Your task to perform on an android device: Open Yahoo.com Image 0: 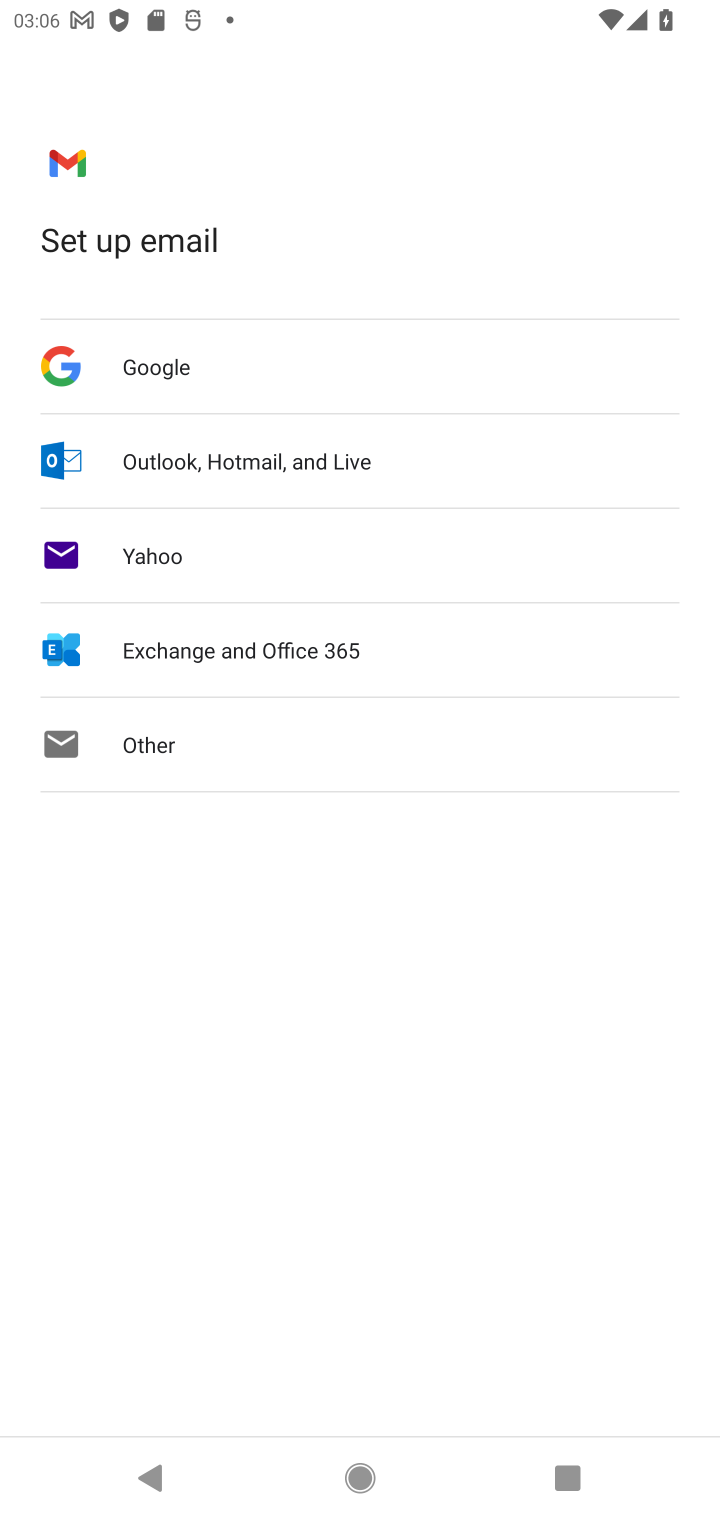
Step 0: press home button
Your task to perform on an android device: Open Yahoo.com Image 1: 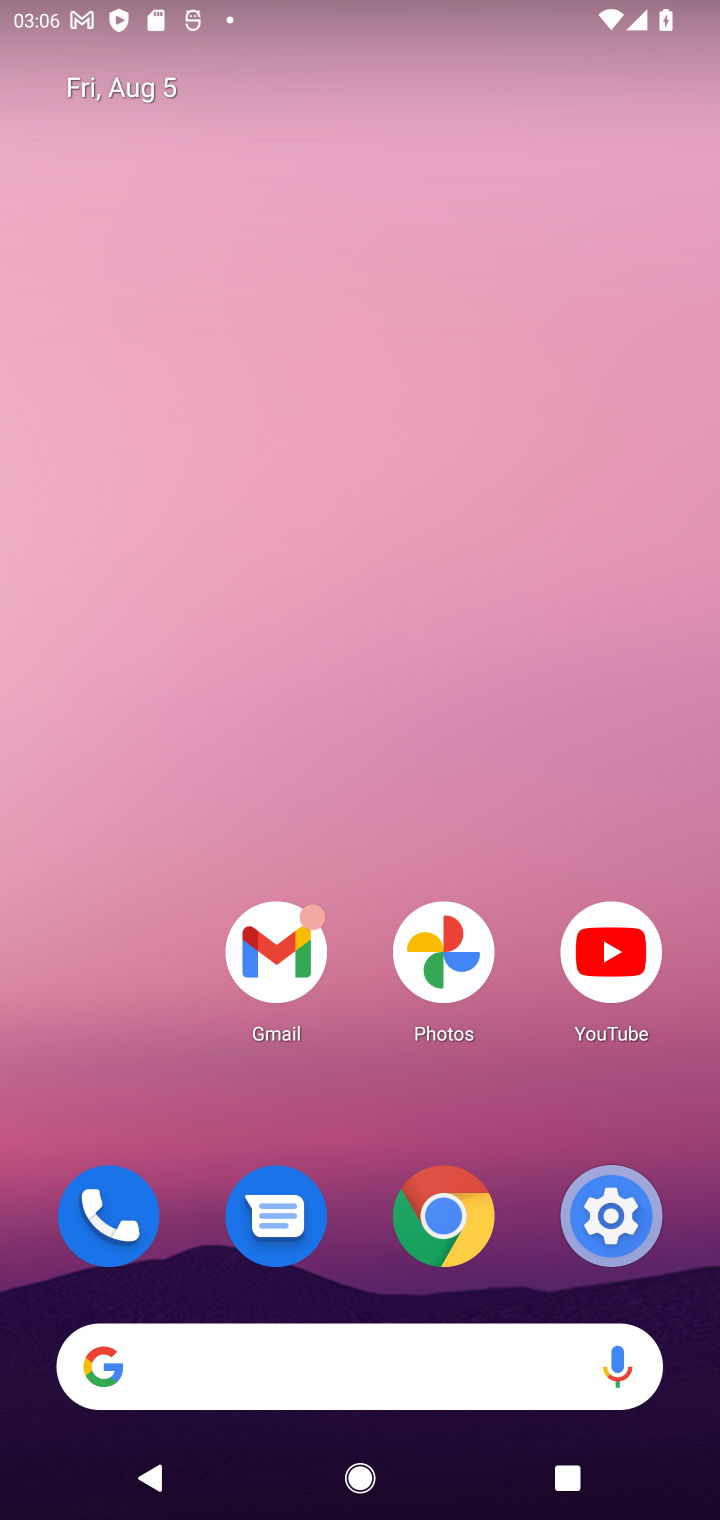
Step 1: press home button
Your task to perform on an android device: Open Yahoo.com Image 2: 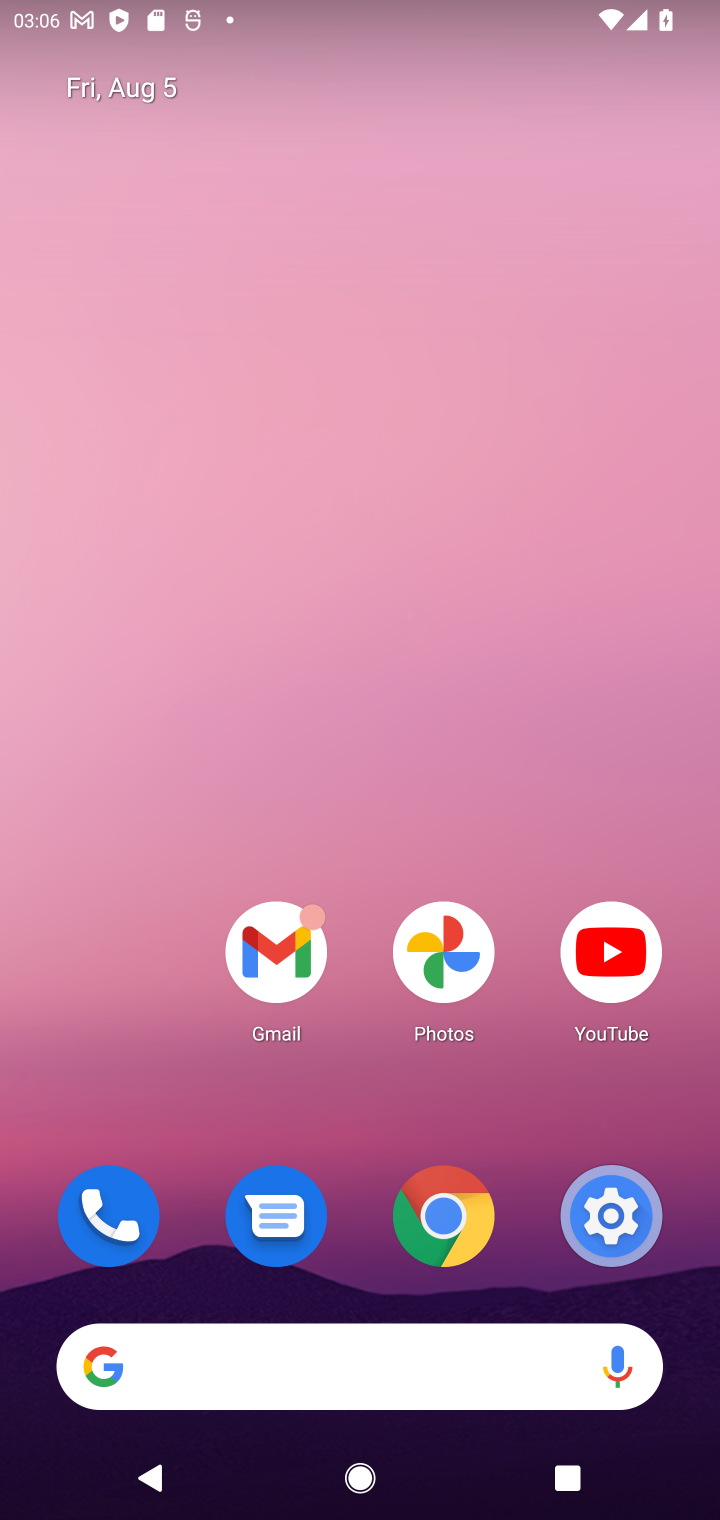
Step 2: click (521, 1354)
Your task to perform on an android device: Open Yahoo.com Image 3: 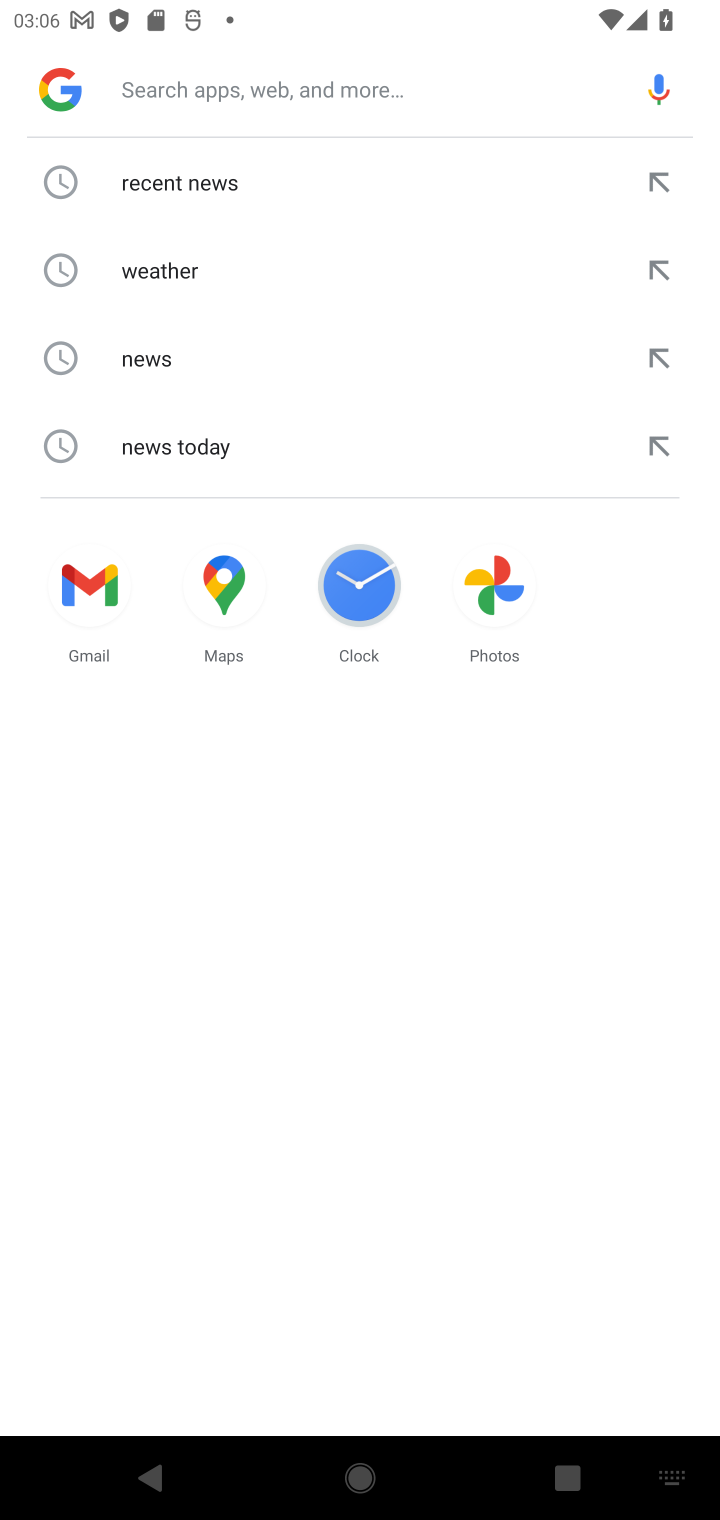
Step 3: type "yahoo.com"
Your task to perform on an android device: Open Yahoo.com Image 4: 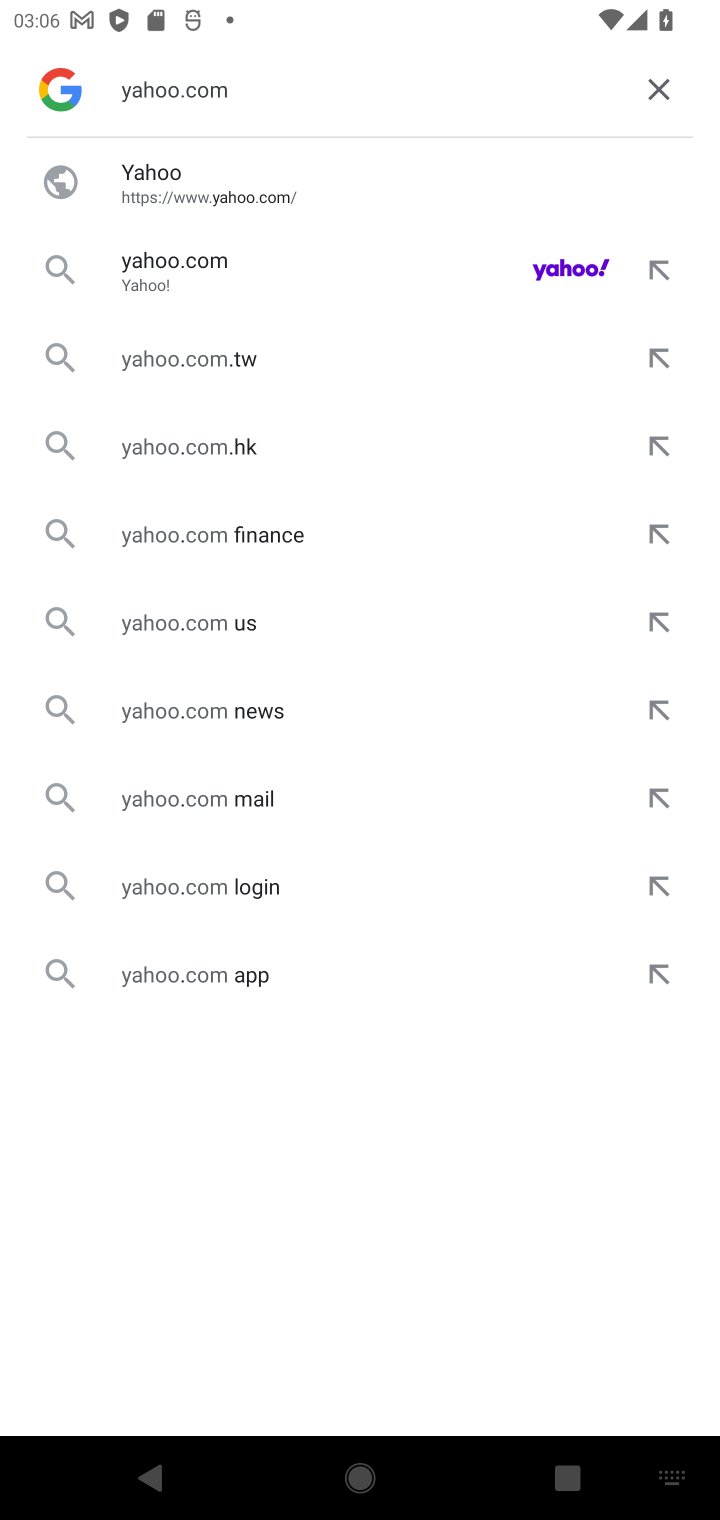
Step 4: click (300, 262)
Your task to perform on an android device: Open Yahoo.com Image 5: 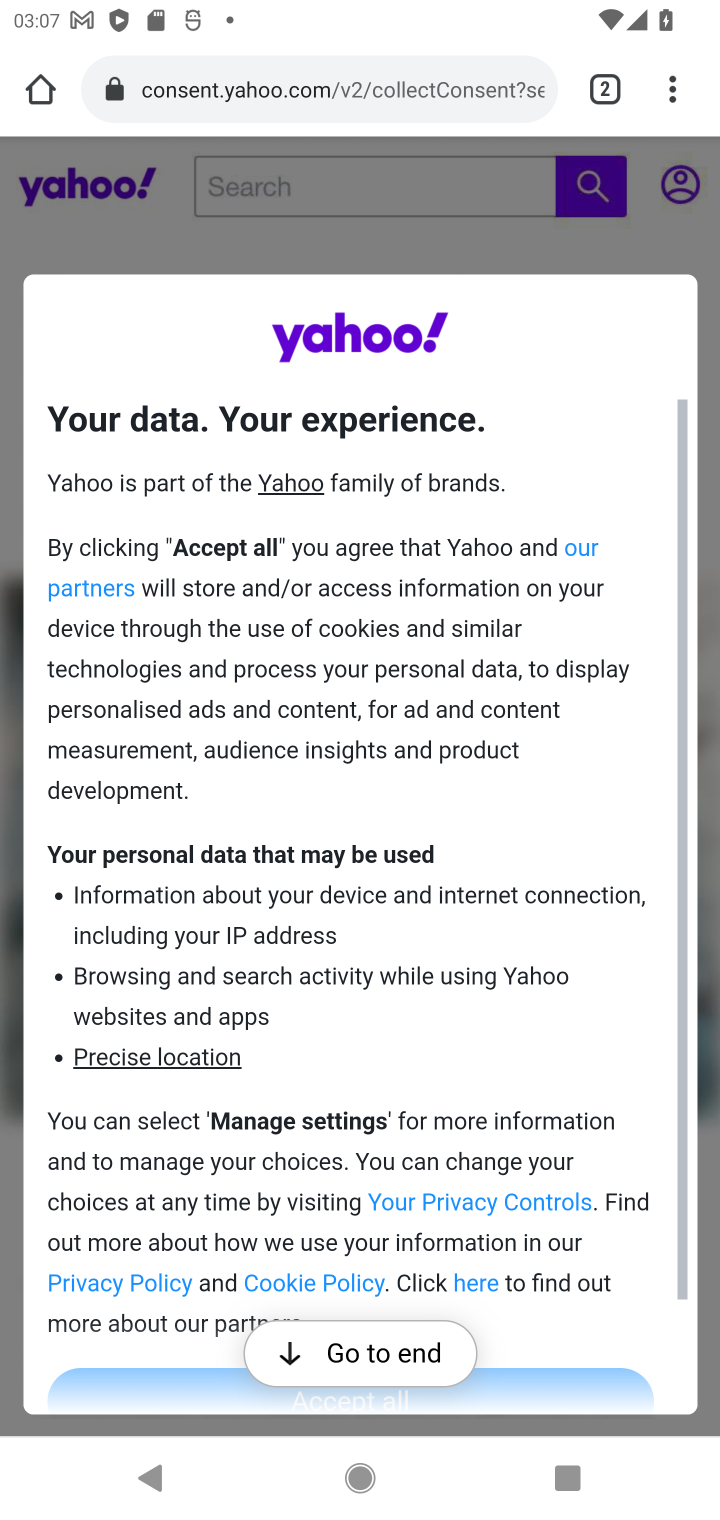
Step 5: task complete